Your task to perform on an android device: delete location history Image 0: 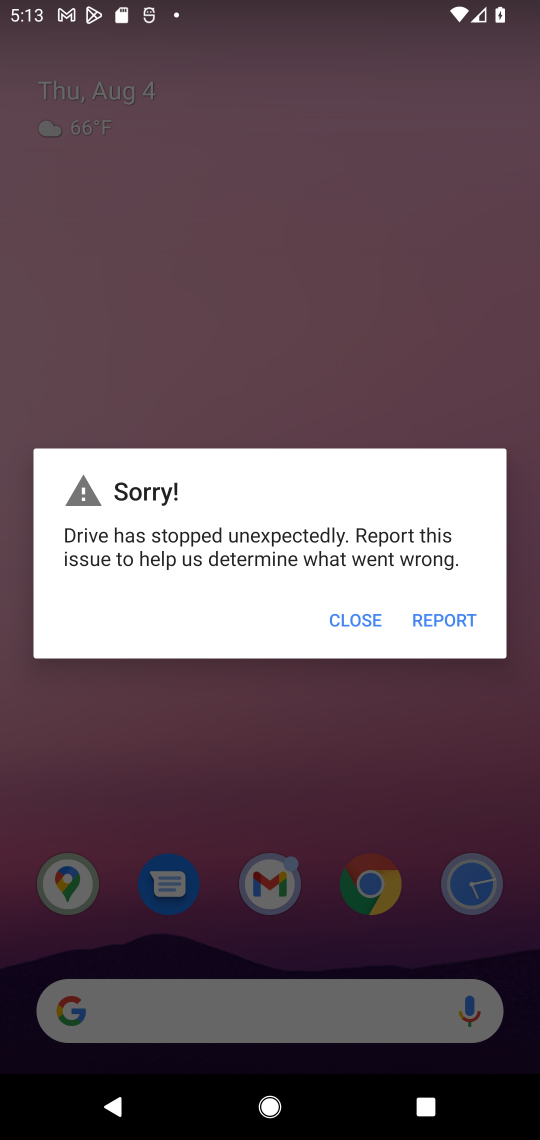
Step 0: press home button
Your task to perform on an android device: delete location history Image 1: 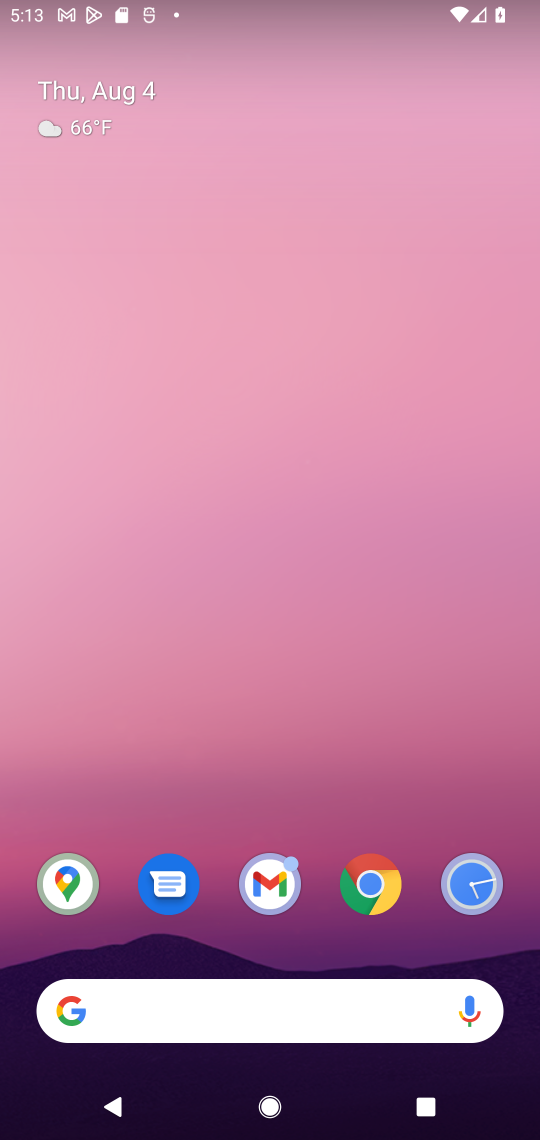
Step 1: drag from (318, 943) to (348, 83)
Your task to perform on an android device: delete location history Image 2: 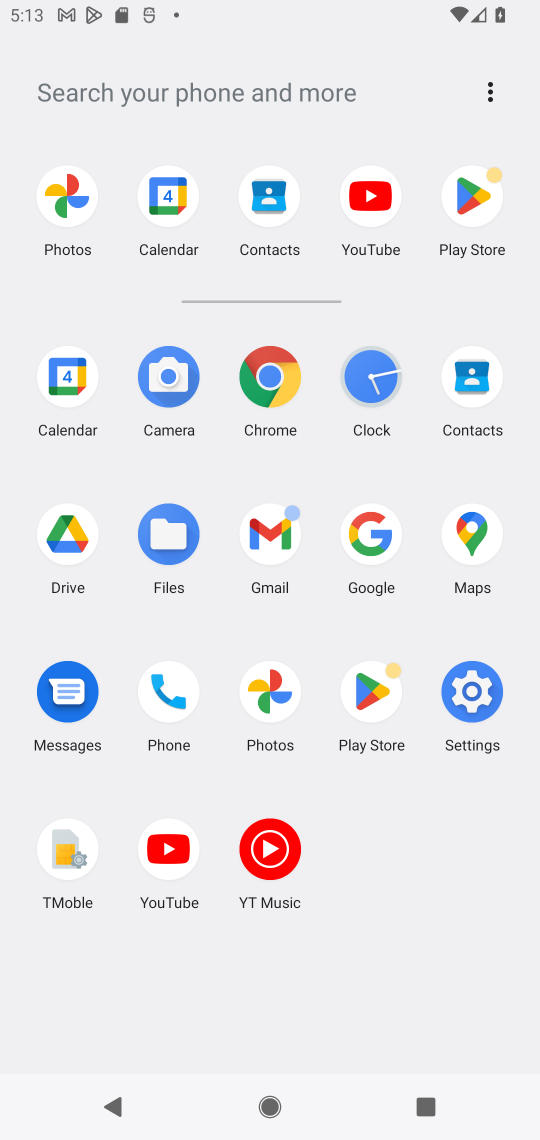
Step 2: click (494, 704)
Your task to perform on an android device: delete location history Image 3: 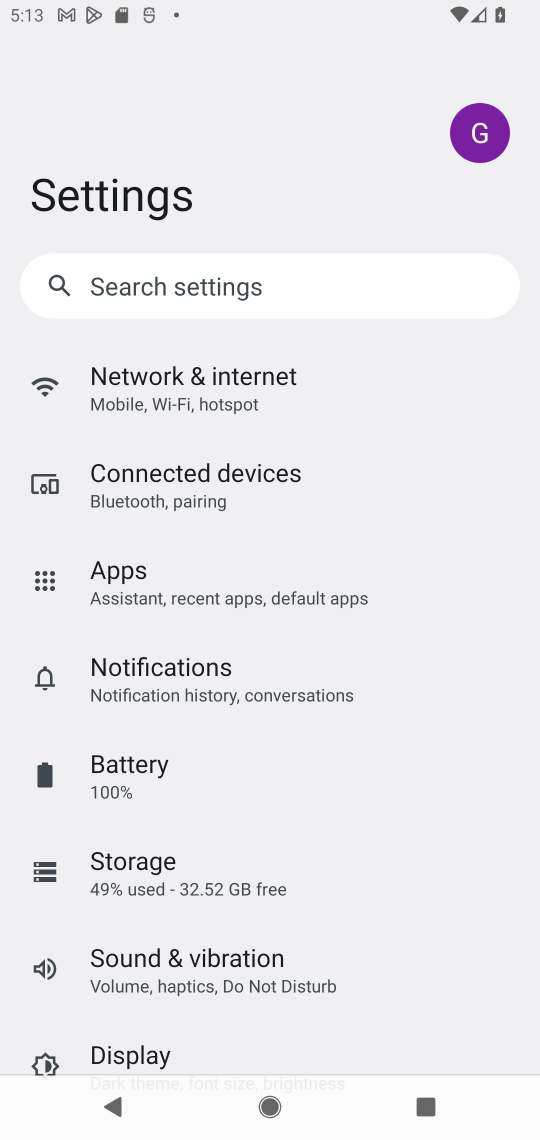
Step 3: drag from (244, 968) to (236, 506)
Your task to perform on an android device: delete location history Image 4: 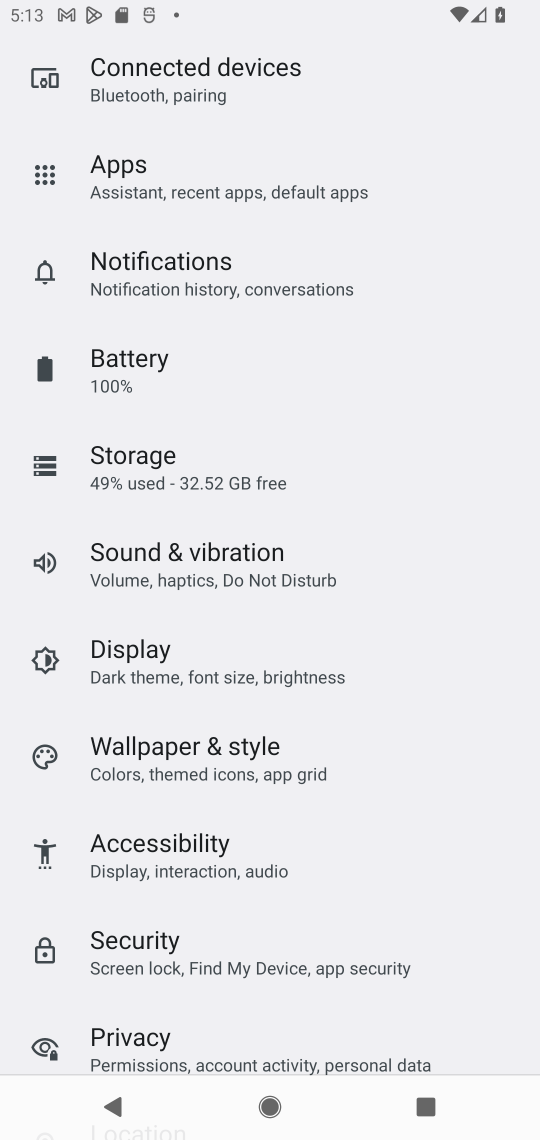
Step 4: drag from (283, 850) to (314, 595)
Your task to perform on an android device: delete location history Image 5: 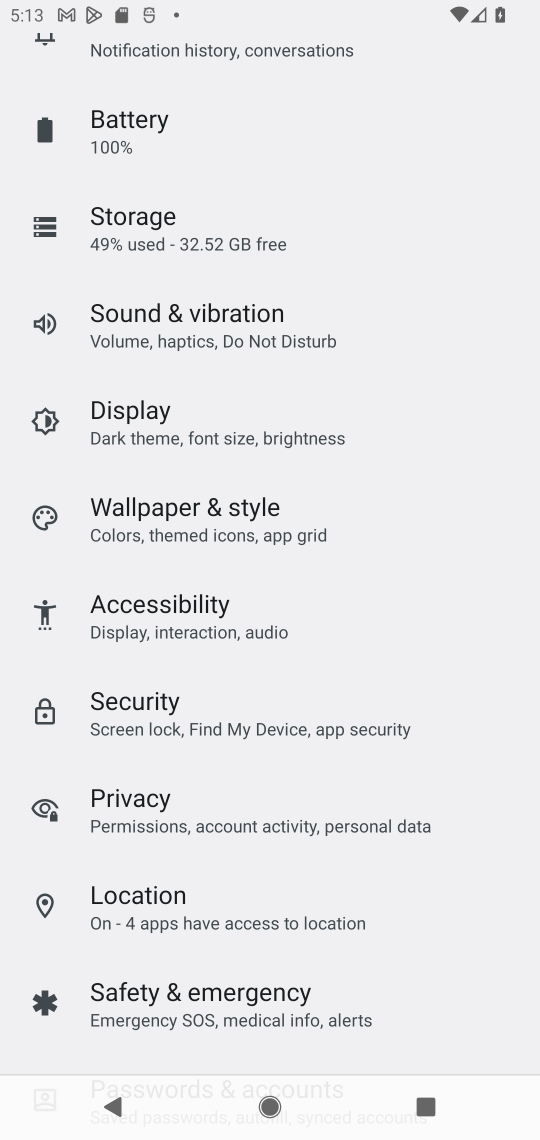
Step 5: click (248, 908)
Your task to perform on an android device: delete location history Image 6: 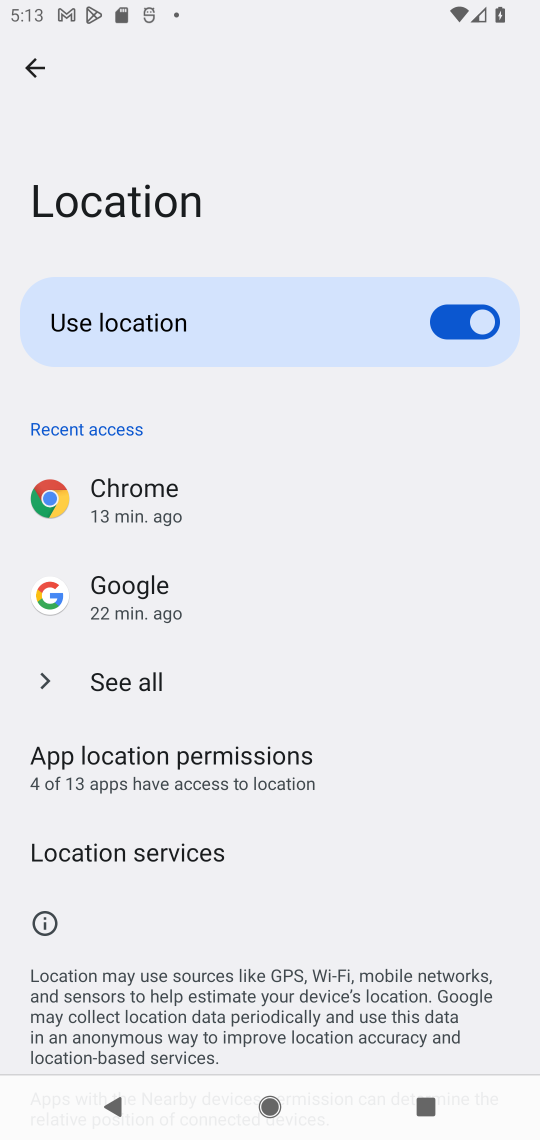
Step 6: task complete